Your task to perform on an android device: Go to notification settings Image 0: 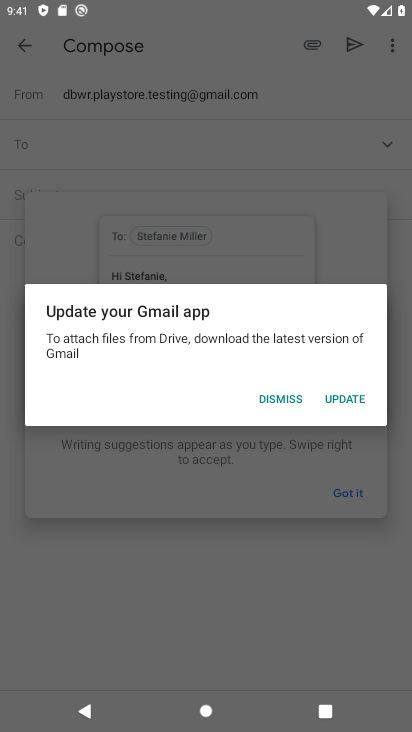
Step 0: press home button
Your task to perform on an android device: Go to notification settings Image 1: 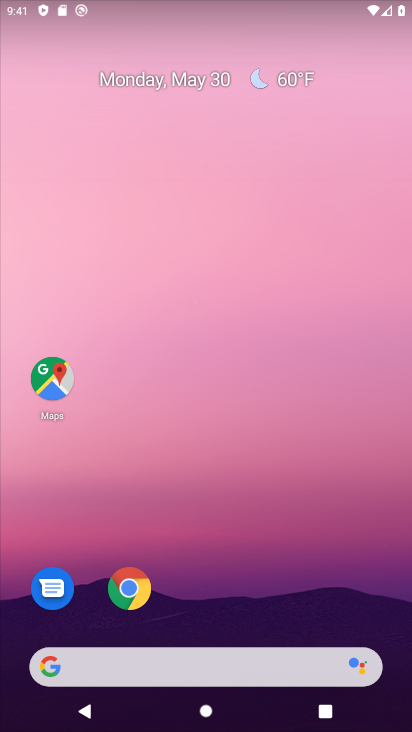
Step 1: drag from (204, 614) to (231, 289)
Your task to perform on an android device: Go to notification settings Image 2: 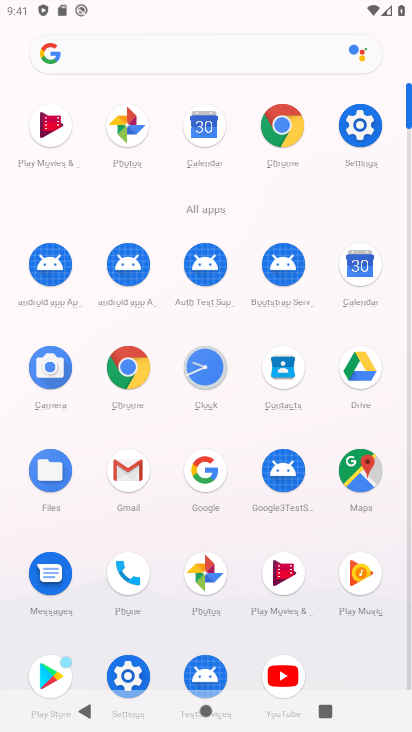
Step 2: click (127, 664)
Your task to perform on an android device: Go to notification settings Image 3: 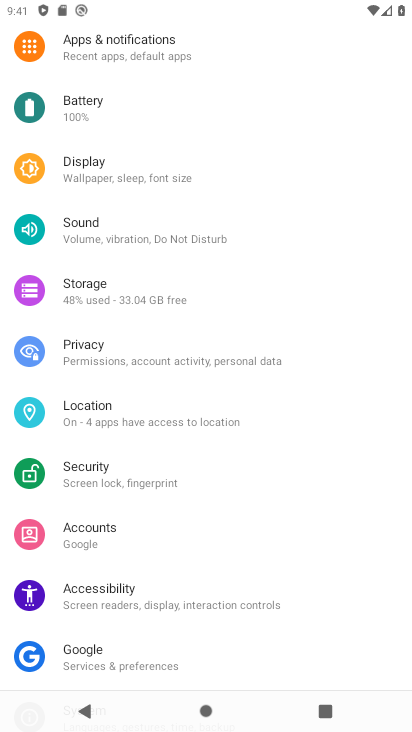
Step 3: click (156, 57)
Your task to perform on an android device: Go to notification settings Image 4: 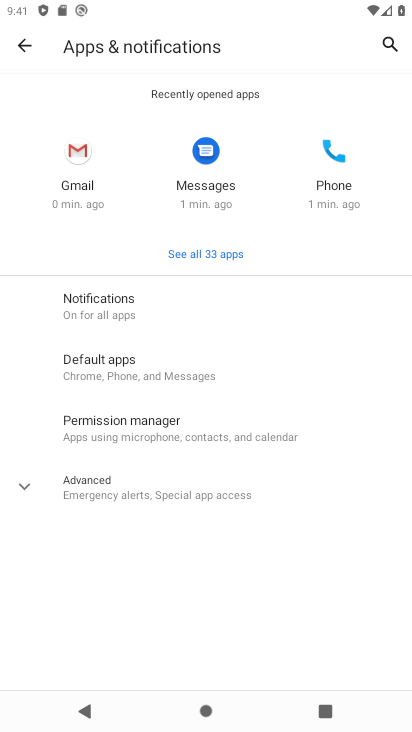
Step 4: click (128, 308)
Your task to perform on an android device: Go to notification settings Image 5: 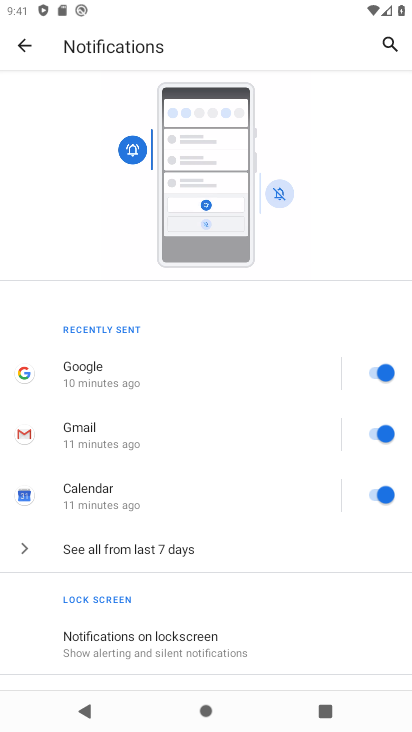
Step 5: task complete